Your task to perform on an android device: open chrome and create a bookmark for the current page Image 0: 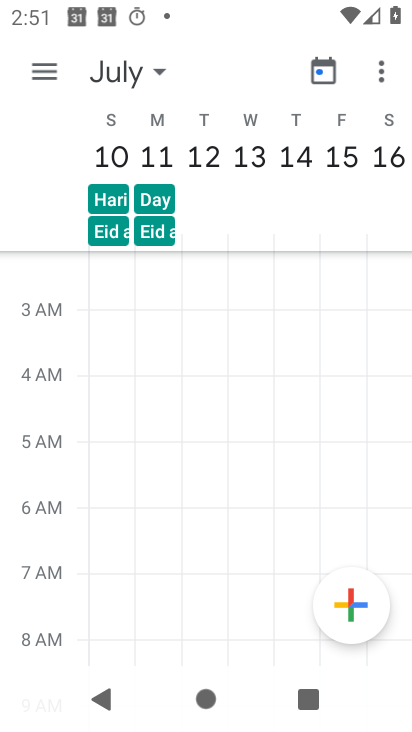
Step 0: press home button
Your task to perform on an android device: open chrome and create a bookmark for the current page Image 1: 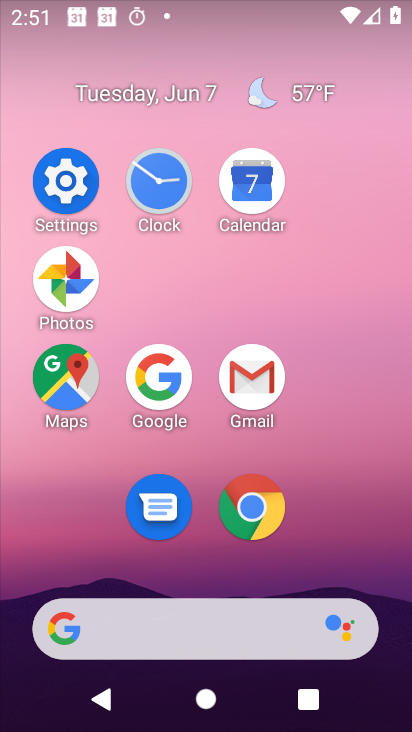
Step 1: click (255, 501)
Your task to perform on an android device: open chrome and create a bookmark for the current page Image 2: 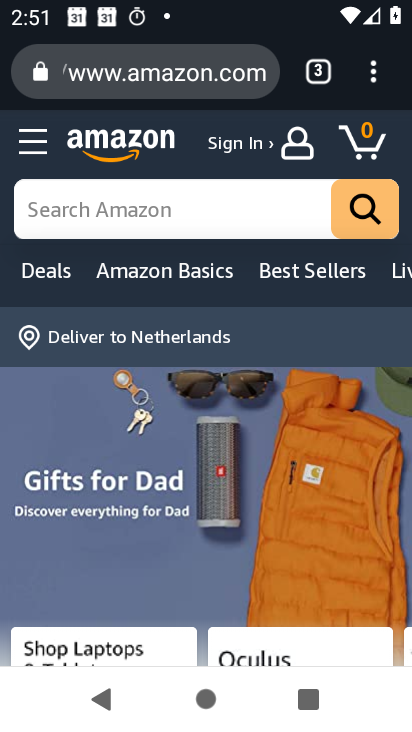
Step 2: click (373, 61)
Your task to perform on an android device: open chrome and create a bookmark for the current page Image 3: 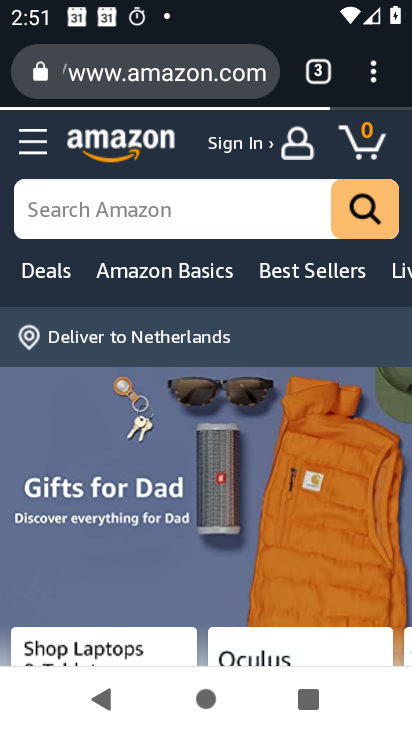
Step 3: click (354, 64)
Your task to perform on an android device: open chrome and create a bookmark for the current page Image 4: 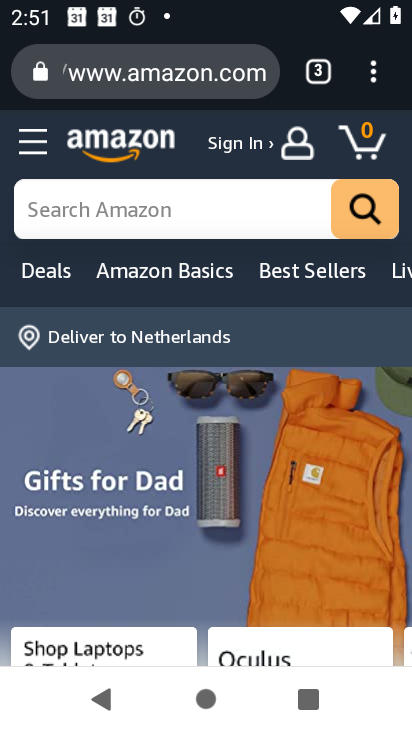
Step 4: click (368, 67)
Your task to perform on an android device: open chrome and create a bookmark for the current page Image 5: 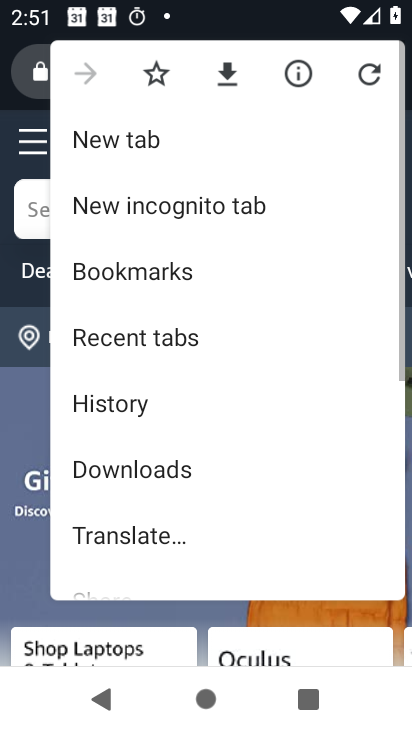
Step 5: click (169, 80)
Your task to perform on an android device: open chrome and create a bookmark for the current page Image 6: 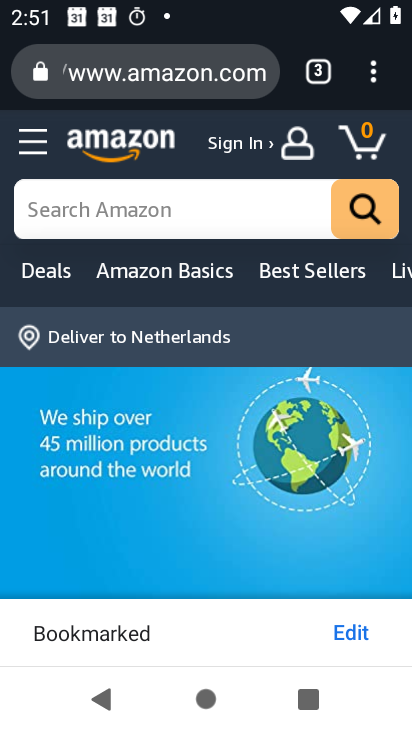
Step 6: task complete